Your task to perform on an android device: check battery use Image 0: 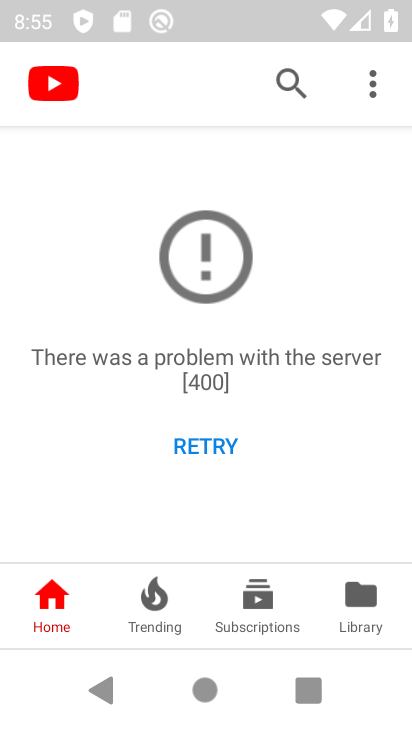
Step 0: press home button
Your task to perform on an android device: check battery use Image 1: 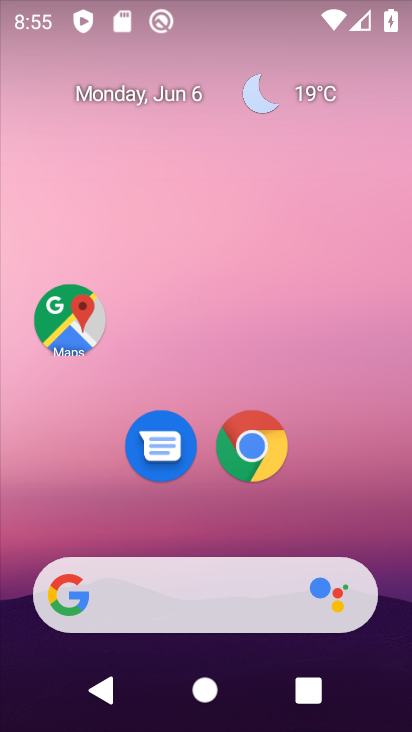
Step 1: drag from (187, 491) to (160, 182)
Your task to perform on an android device: check battery use Image 2: 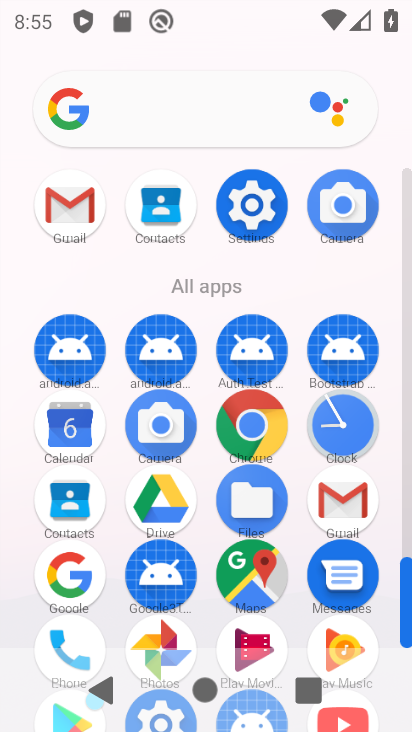
Step 2: click (244, 212)
Your task to perform on an android device: check battery use Image 3: 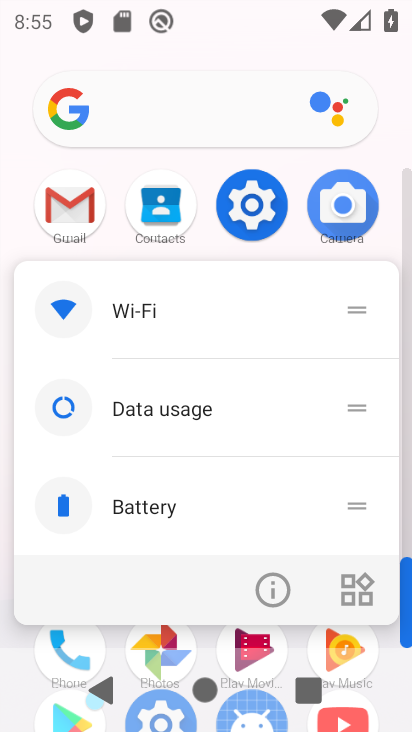
Step 3: click (256, 211)
Your task to perform on an android device: check battery use Image 4: 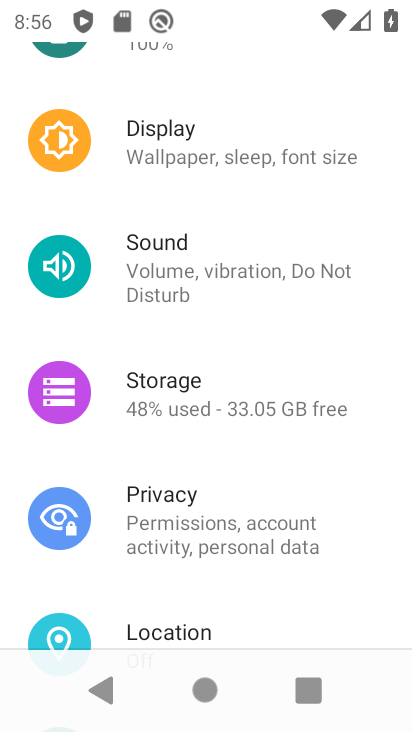
Step 4: drag from (242, 186) to (269, 561)
Your task to perform on an android device: check battery use Image 5: 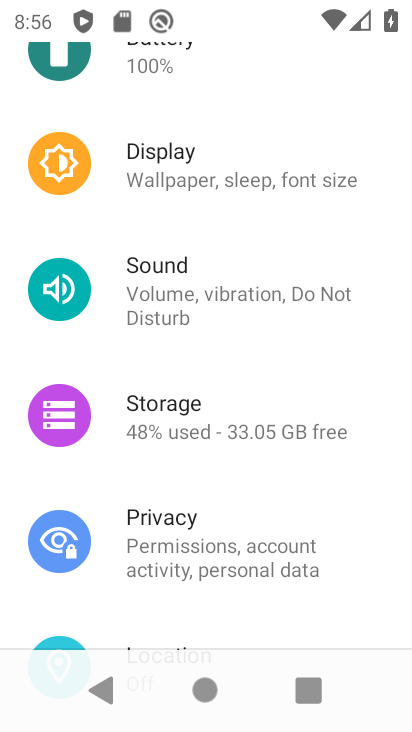
Step 5: click (170, 63)
Your task to perform on an android device: check battery use Image 6: 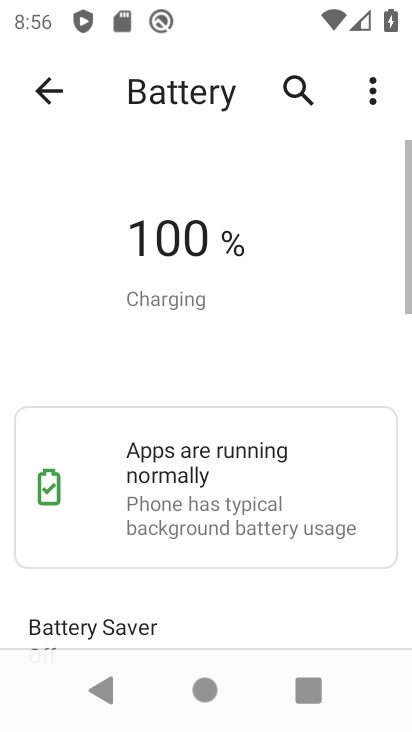
Step 6: click (379, 94)
Your task to perform on an android device: check battery use Image 7: 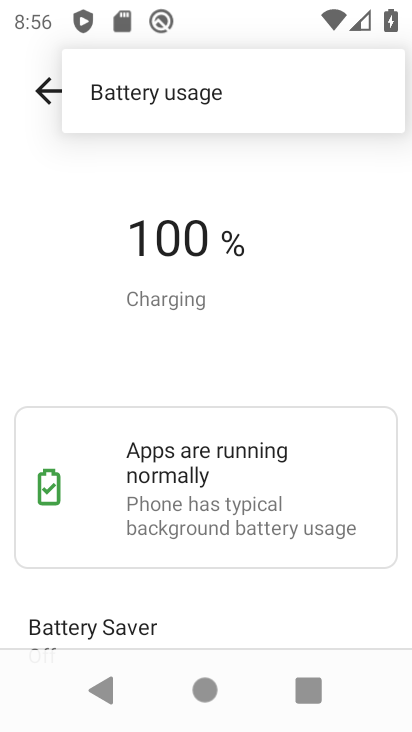
Step 7: click (267, 93)
Your task to perform on an android device: check battery use Image 8: 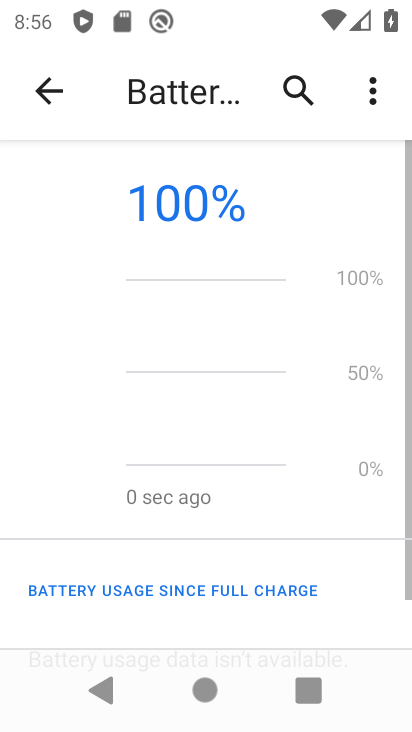
Step 8: task complete